Your task to perform on an android device: Open accessibility settings Image 0: 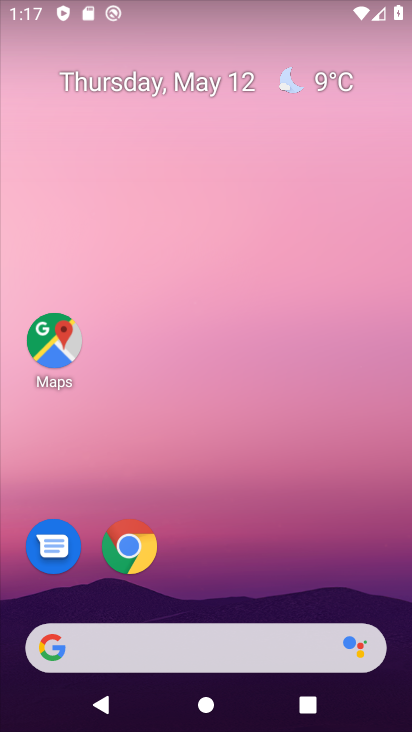
Step 0: drag from (182, 669) to (259, 221)
Your task to perform on an android device: Open accessibility settings Image 1: 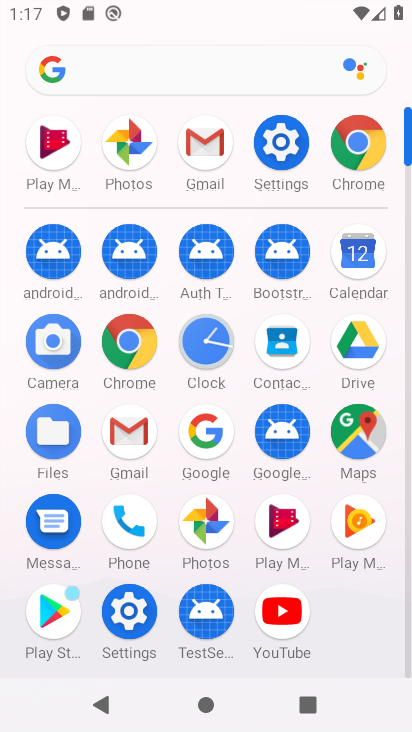
Step 1: click (122, 620)
Your task to perform on an android device: Open accessibility settings Image 2: 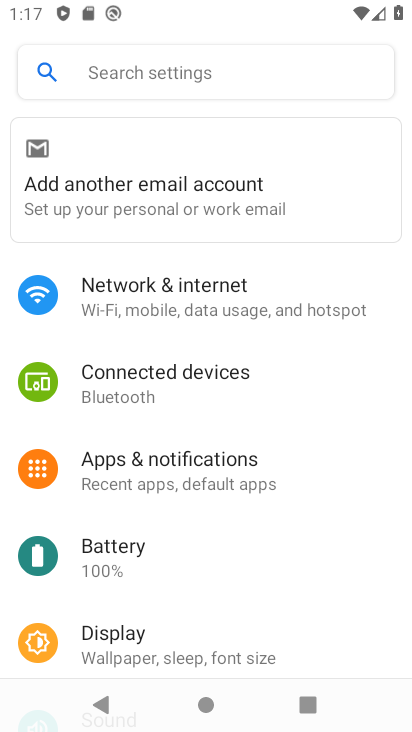
Step 2: click (229, 81)
Your task to perform on an android device: Open accessibility settings Image 3: 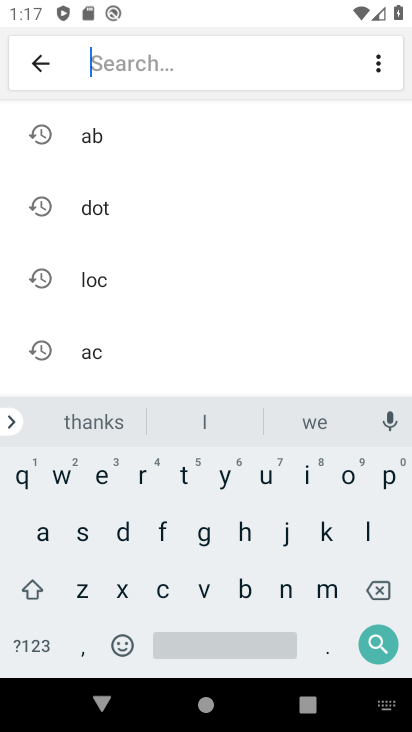
Step 3: click (39, 524)
Your task to perform on an android device: Open accessibility settings Image 4: 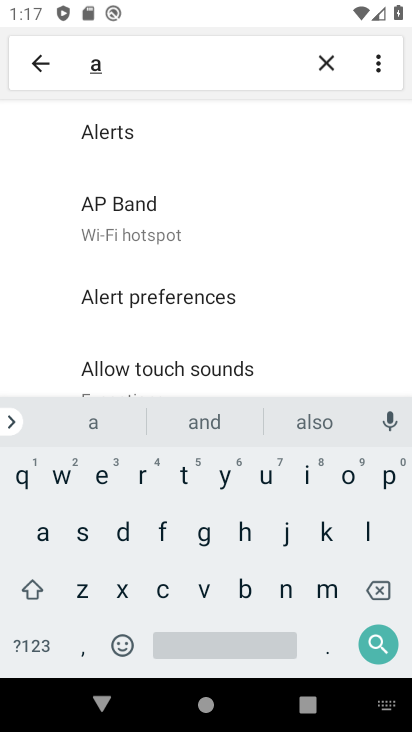
Step 4: click (163, 591)
Your task to perform on an android device: Open accessibility settings Image 5: 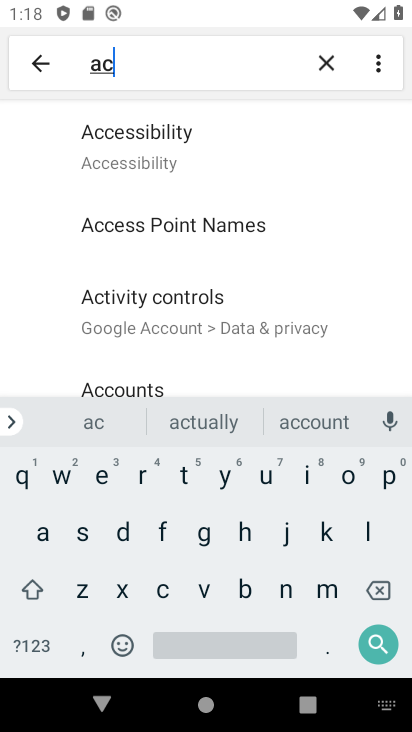
Step 5: click (221, 149)
Your task to perform on an android device: Open accessibility settings Image 6: 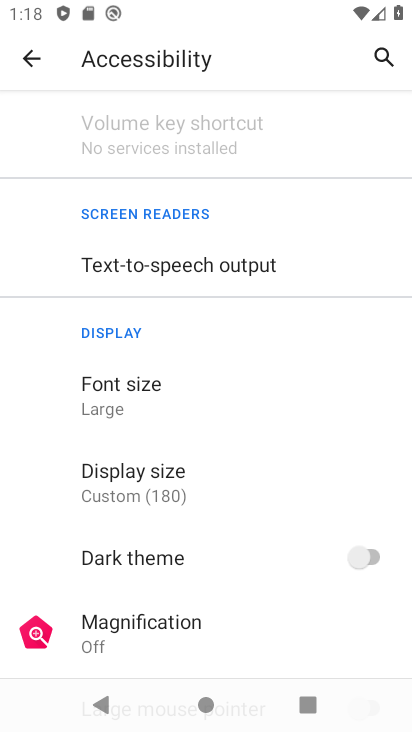
Step 6: task complete